Your task to perform on an android device: Open eBay Image 0: 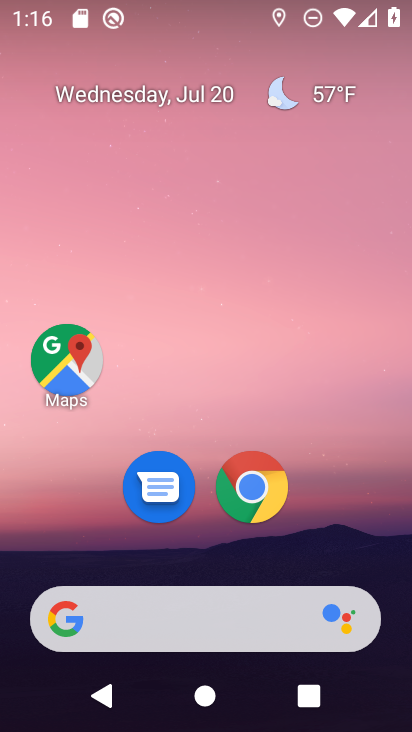
Step 0: drag from (355, 530) to (388, 77)
Your task to perform on an android device: Open eBay Image 1: 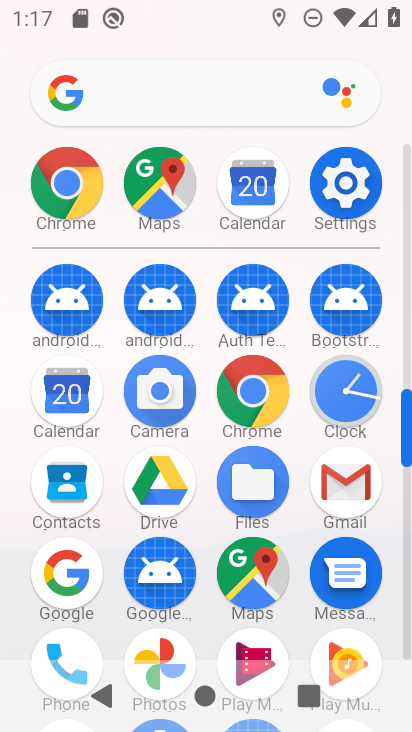
Step 1: click (258, 385)
Your task to perform on an android device: Open eBay Image 2: 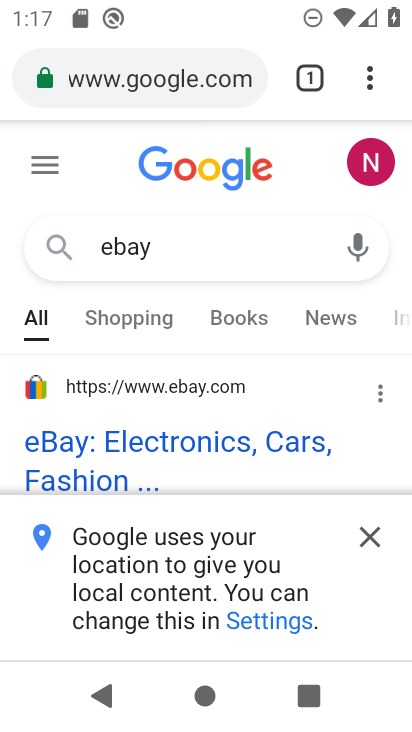
Step 2: task complete